Your task to perform on an android device: open a bookmark in the chrome app Image 0: 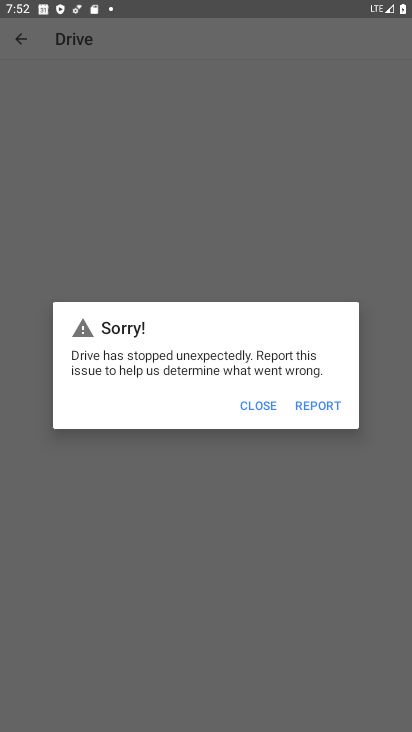
Step 0: press back button
Your task to perform on an android device: open a bookmark in the chrome app Image 1: 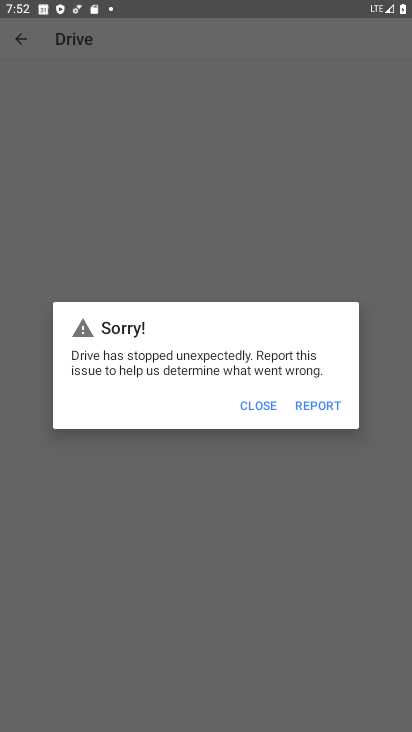
Step 1: press back button
Your task to perform on an android device: open a bookmark in the chrome app Image 2: 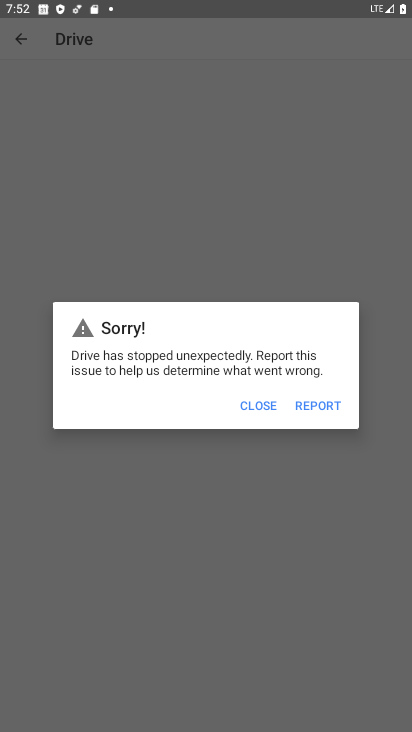
Step 2: press home button
Your task to perform on an android device: open a bookmark in the chrome app Image 3: 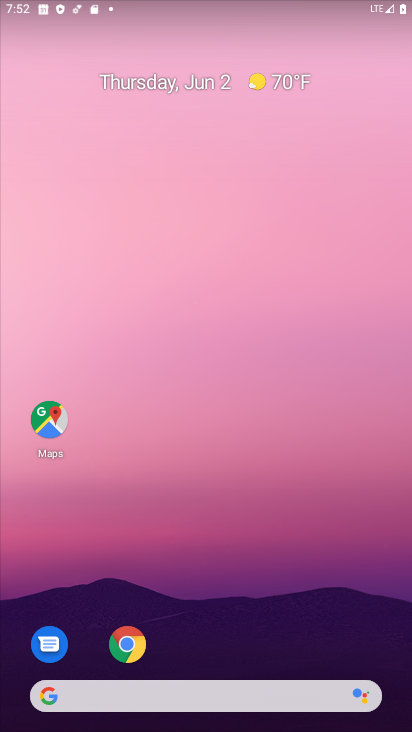
Step 3: drag from (248, 589) to (191, 12)
Your task to perform on an android device: open a bookmark in the chrome app Image 4: 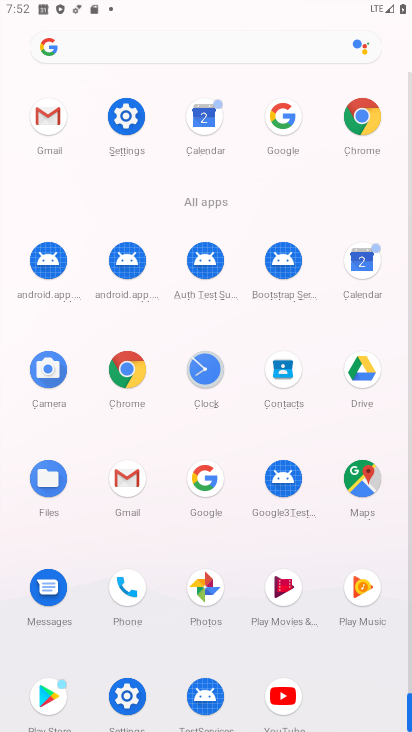
Step 4: click (127, 366)
Your task to perform on an android device: open a bookmark in the chrome app Image 5: 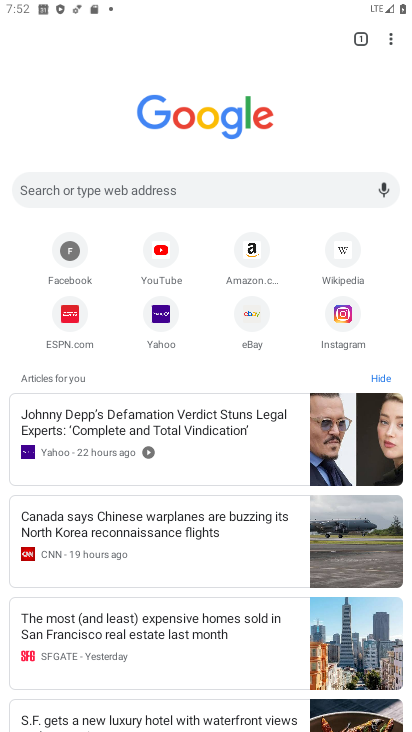
Step 5: drag from (391, 34) to (244, 188)
Your task to perform on an android device: open a bookmark in the chrome app Image 6: 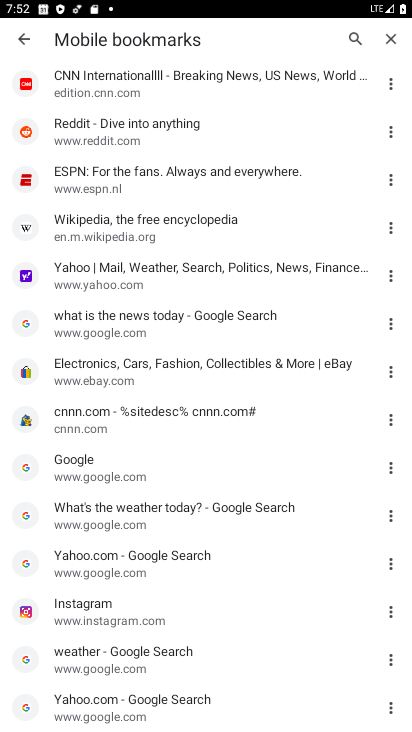
Step 6: click (165, 115)
Your task to perform on an android device: open a bookmark in the chrome app Image 7: 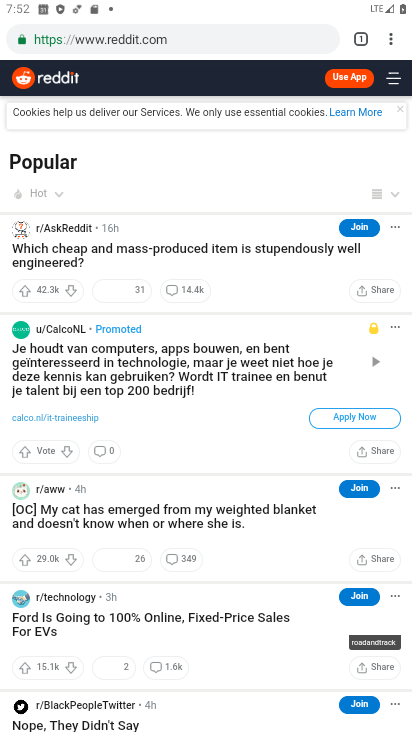
Step 7: task complete